Your task to perform on an android device: move a message to another label in the gmail app Image 0: 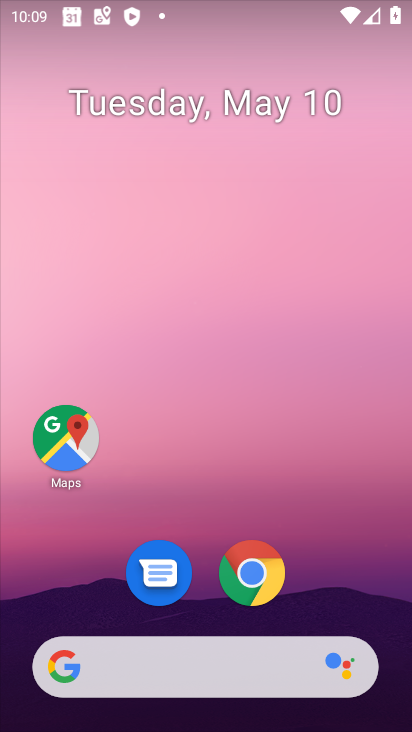
Step 0: drag from (336, 515) to (224, 31)
Your task to perform on an android device: move a message to another label in the gmail app Image 1: 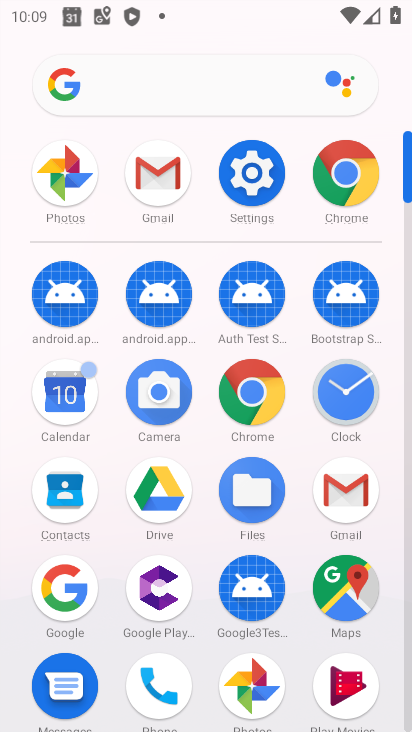
Step 1: click (165, 172)
Your task to perform on an android device: move a message to another label in the gmail app Image 2: 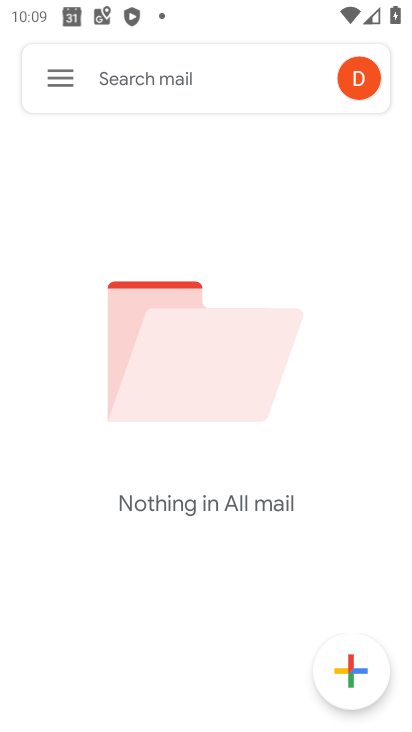
Step 2: task complete